Your task to perform on an android device: Show me popular games on the Play Store Image 0: 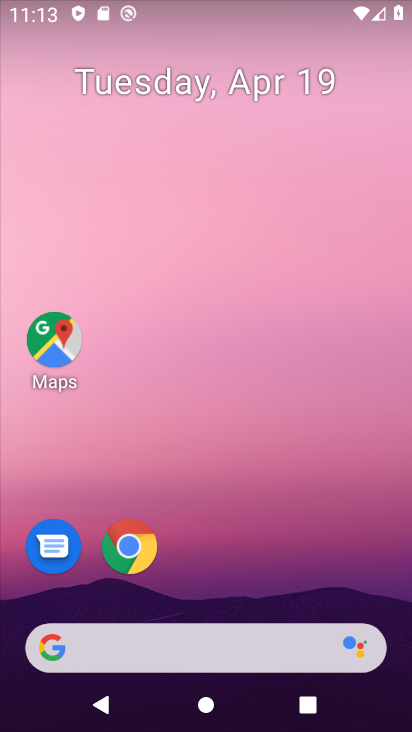
Step 0: drag from (366, 588) to (270, 25)
Your task to perform on an android device: Show me popular games on the Play Store Image 1: 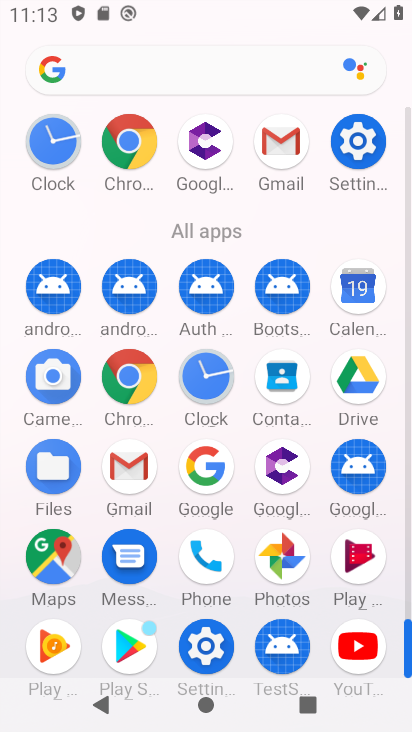
Step 1: drag from (1, 461) to (7, 308)
Your task to perform on an android device: Show me popular games on the Play Store Image 2: 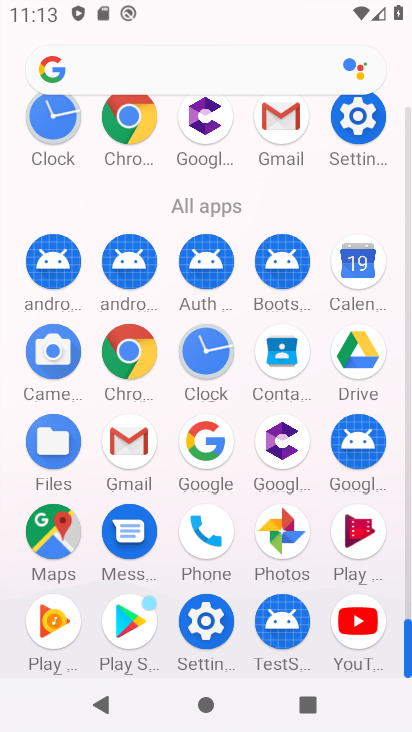
Step 2: click (130, 624)
Your task to perform on an android device: Show me popular games on the Play Store Image 3: 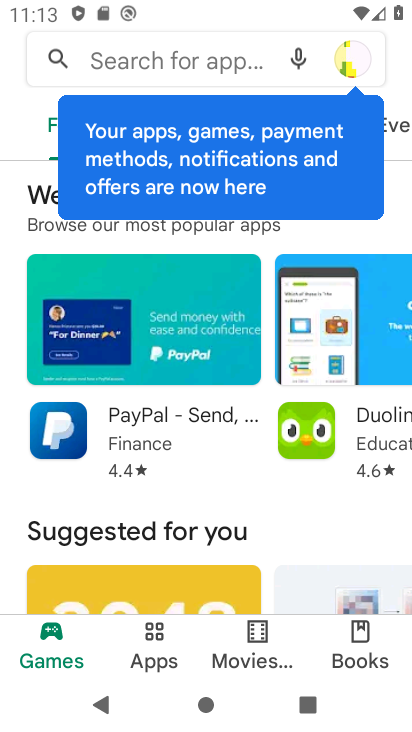
Step 3: task complete